Your task to perform on an android device: turn on the 24-hour format for clock Image 0: 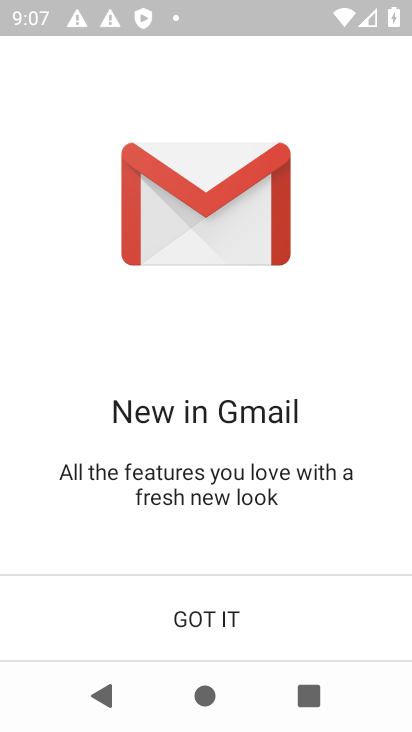
Step 0: press home button
Your task to perform on an android device: turn on the 24-hour format for clock Image 1: 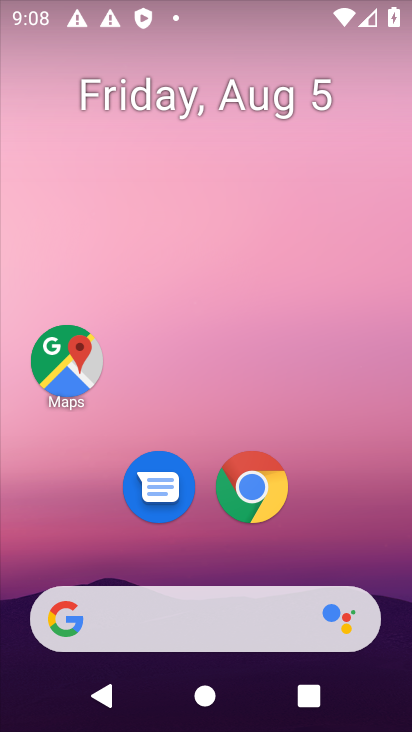
Step 1: drag from (228, 584) to (152, 14)
Your task to perform on an android device: turn on the 24-hour format for clock Image 2: 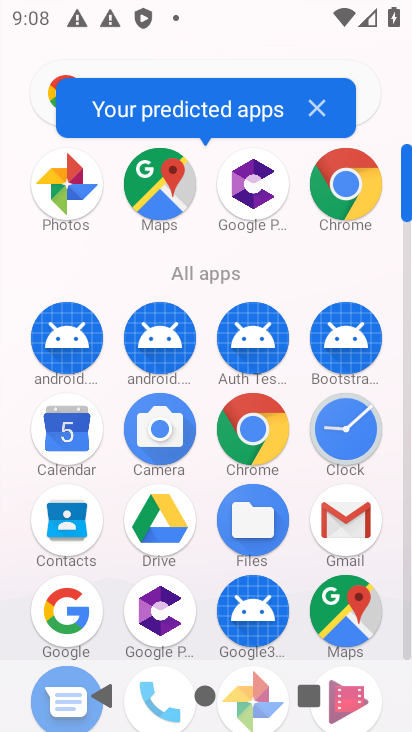
Step 2: click (337, 441)
Your task to perform on an android device: turn on the 24-hour format for clock Image 3: 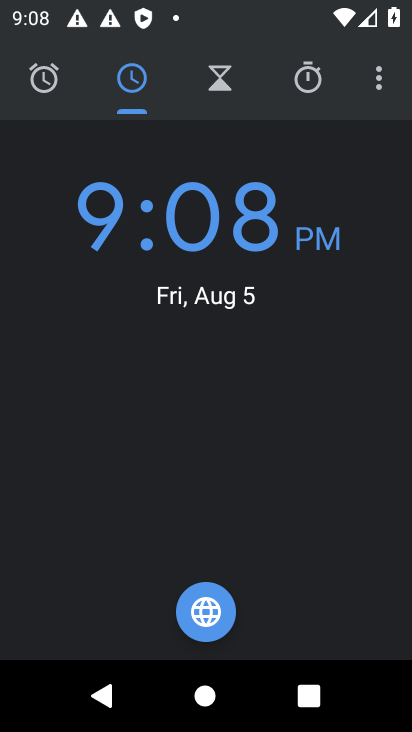
Step 3: click (387, 90)
Your task to perform on an android device: turn on the 24-hour format for clock Image 4: 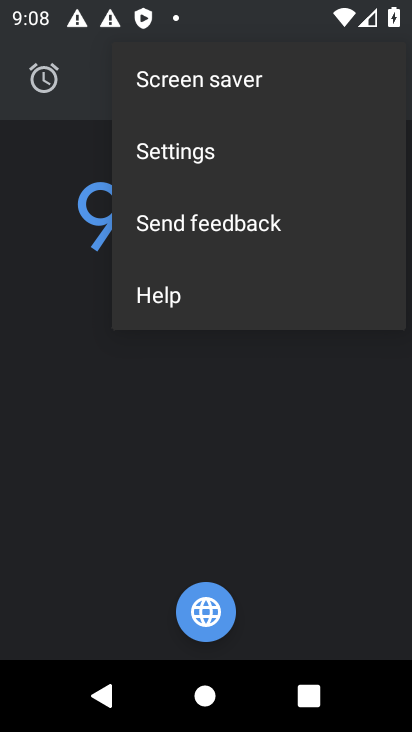
Step 4: click (216, 167)
Your task to perform on an android device: turn on the 24-hour format for clock Image 5: 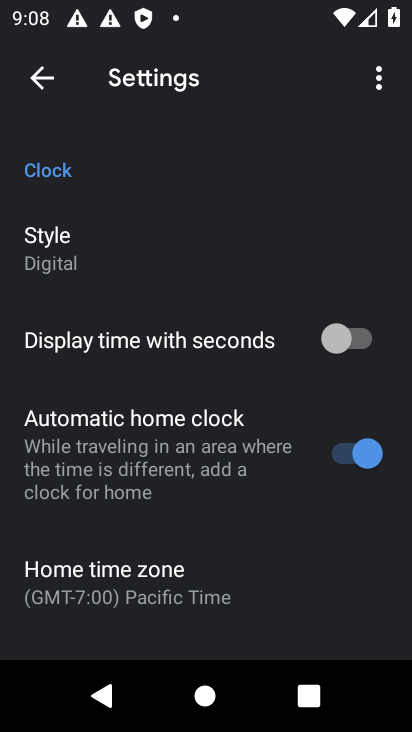
Step 5: drag from (243, 577) to (171, 177)
Your task to perform on an android device: turn on the 24-hour format for clock Image 6: 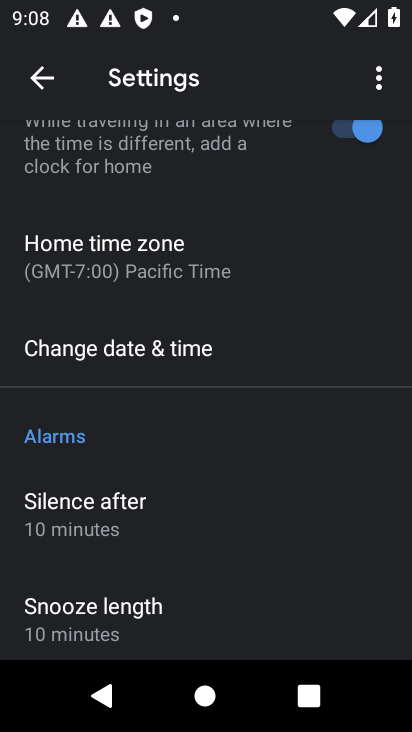
Step 6: click (163, 338)
Your task to perform on an android device: turn on the 24-hour format for clock Image 7: 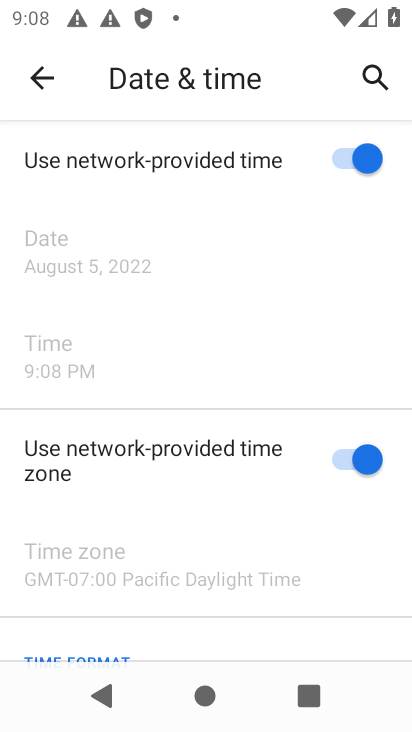
Step 7: drag from (267, 556) to (287, 31)
Your task to perform on an android device: turn on the 24-hour format for clock Image 8: 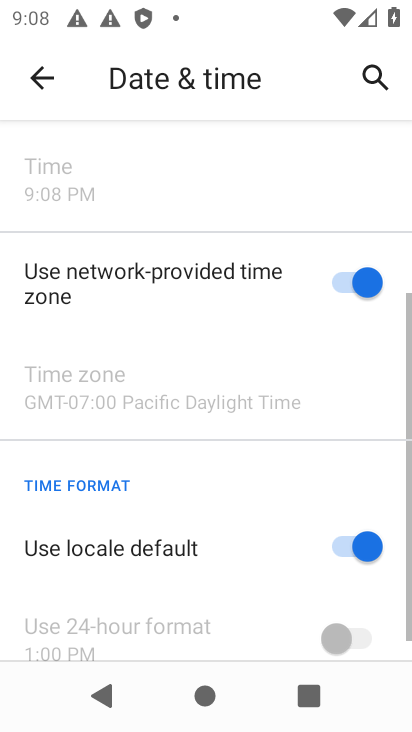
Step 8: click (353, 526)
Your task to perform on an android device: turn on the 24-hour format for clock Image 9: 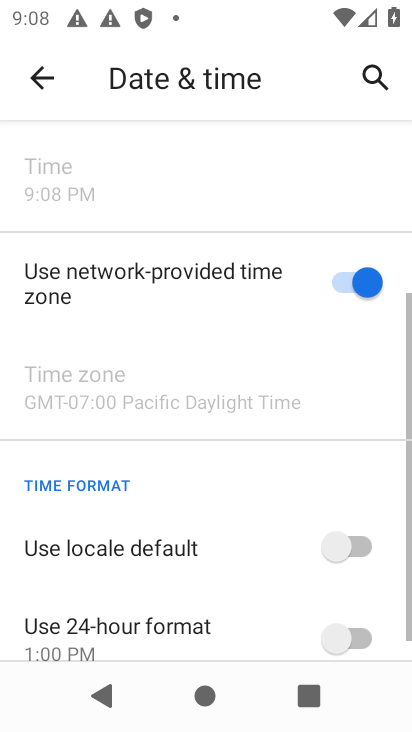
Step 9: click (350, 645)
Your task to perform on an android device: turn on the 24-hour format for clock Image 10: 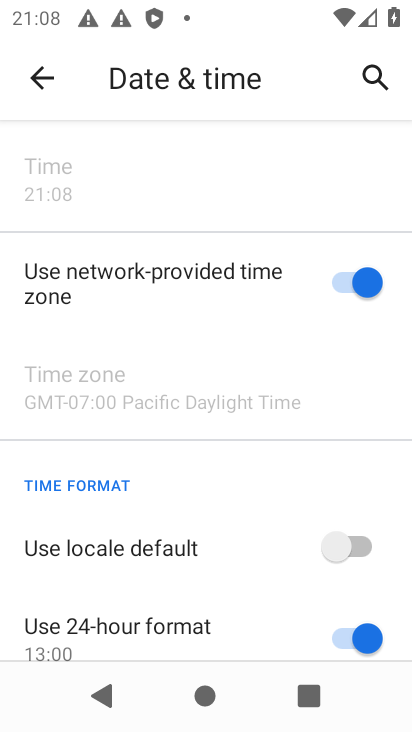
Step 10: task complete